Your task to perform on an android device: allow notifications from all sites in the chrome app Image 0: 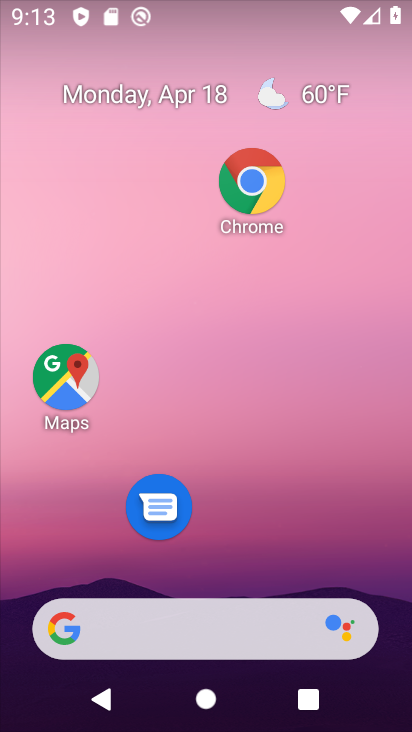
Step 0: drag from (210, 615) to (228, 267)
Your task to perform on an android device: allow notifications from all sites in the chrome app Image 1: 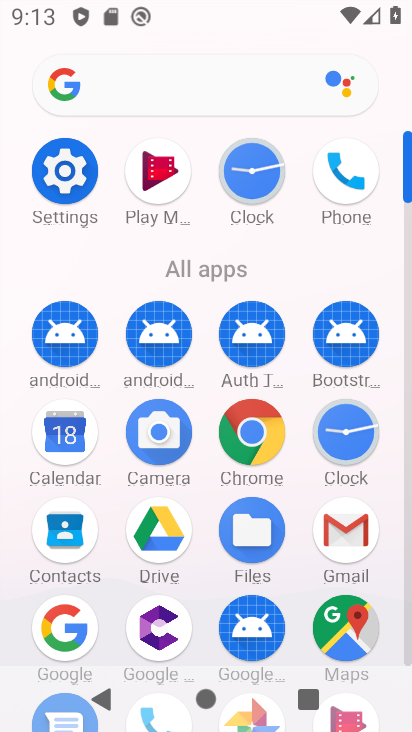
Step 1: click (254, 426)
Your task to perform on an android device: allow notifications from all sites in the chrome app Image 2: 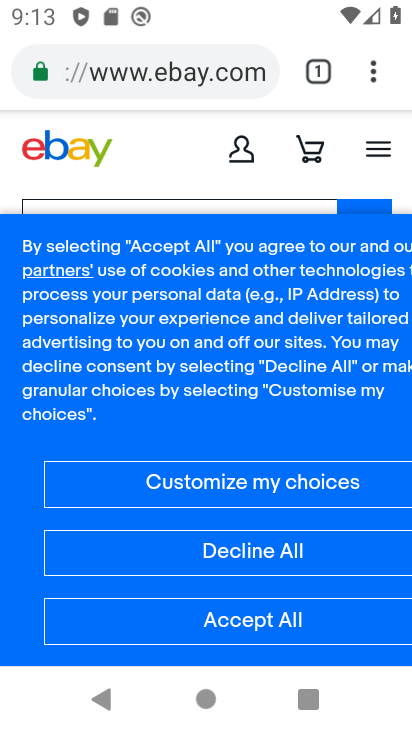
Step 2: click (374, 72)
Your task to perform on an android device: allow notifications from all sites in the chrome app Image 3: 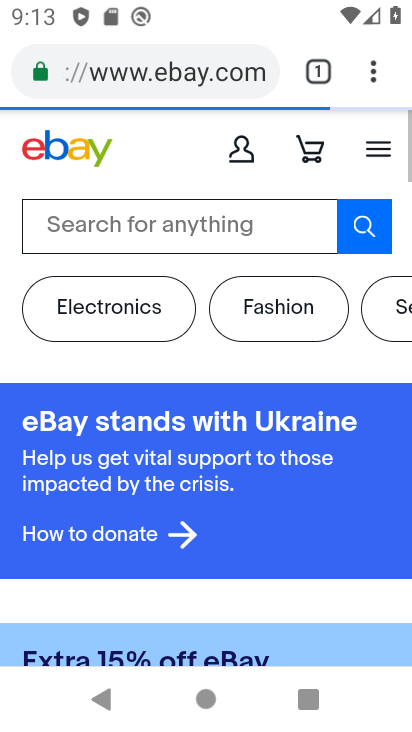
Step 3: drag from (374, 72) to (128, 502)
Your task to perform on an android device: allow notifications from all sites in the chrome app Image 4: 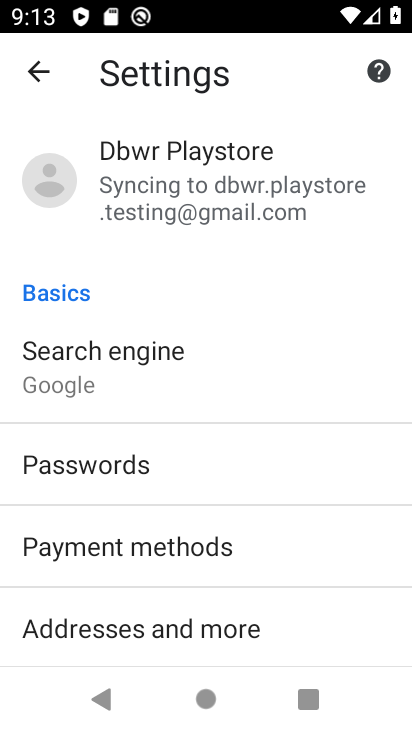
Step 4: drag from (111, 581) to (101, 126)
Your task to perform on an android device: allow notifications from all sites in the chrome app Image 5: 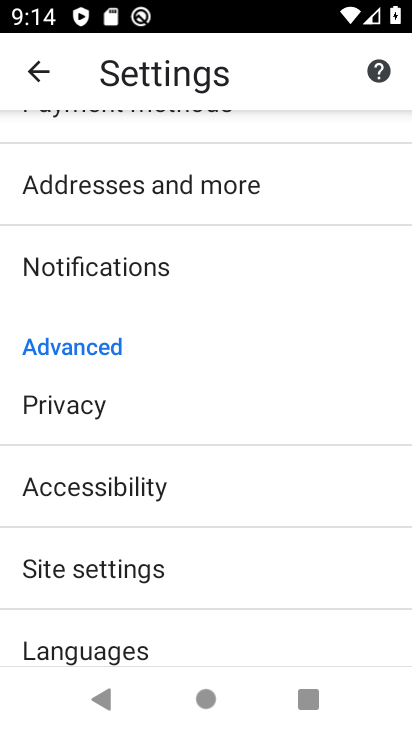
Step 5: click (83, 579)
Your task to perform on an android device: allow notifications from all sites in the chrome app Image 6: 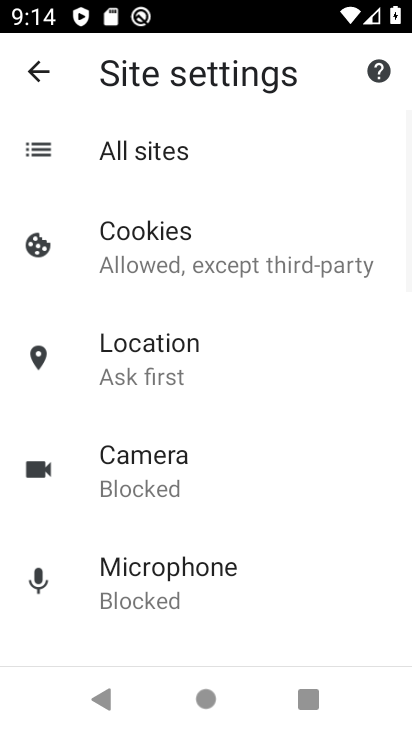
Step 6: drag from (138, 526) to (116, 49)
Your task to perform on an android device: allow notifications from all sites in the chrome app Image 7: 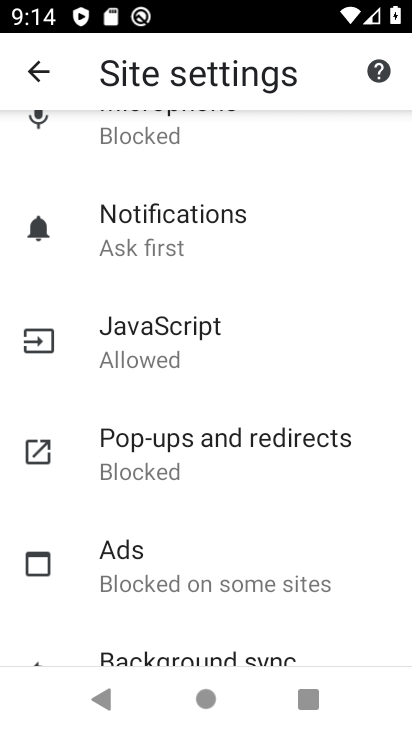
Step 7: drag from (159, 562) to (147, 298)
Your task to perform on an android device: allow notifications from all sites in the chrome app Image 8: 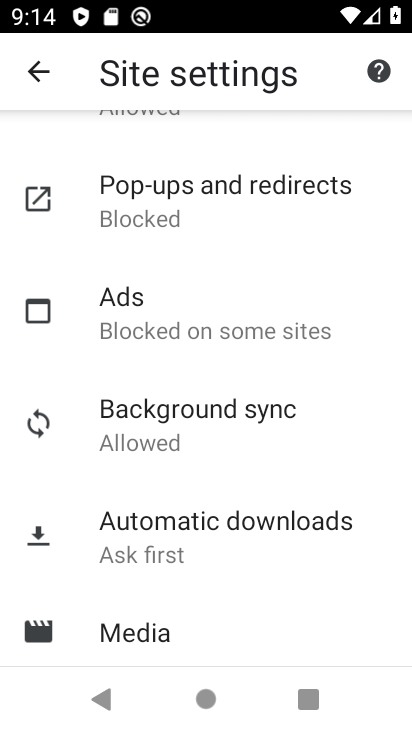
Step 8: drag from (130, 271) to (79, 717)
Your task to perform on an android device: allow notifications from all sites in the chrome app Image 9: 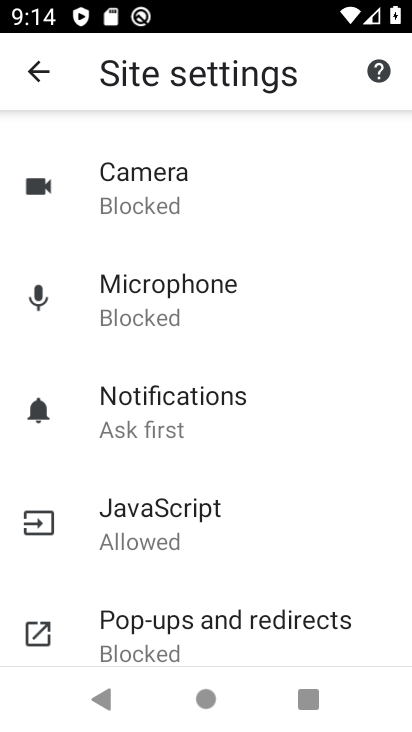
Step 9: click (192, 406)
Your task to perform on an android device: allow notifications from all sites in the chrome app Image 10: 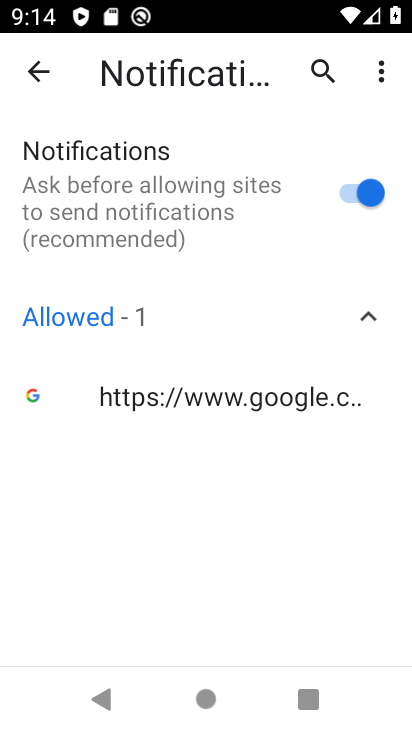
Step 10: task complete